Your task to perform on an android device: What's the weather going to be tomorrow? Image 0: 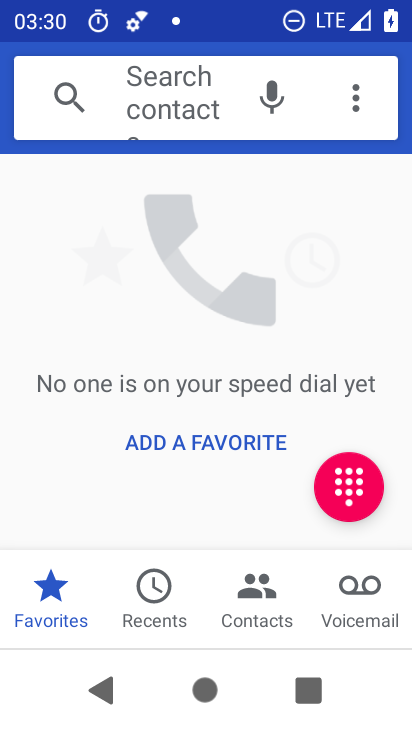
Step 0: press home button
Your task to perform on an android device: What's the weather going to be tomorrow? Image 1: 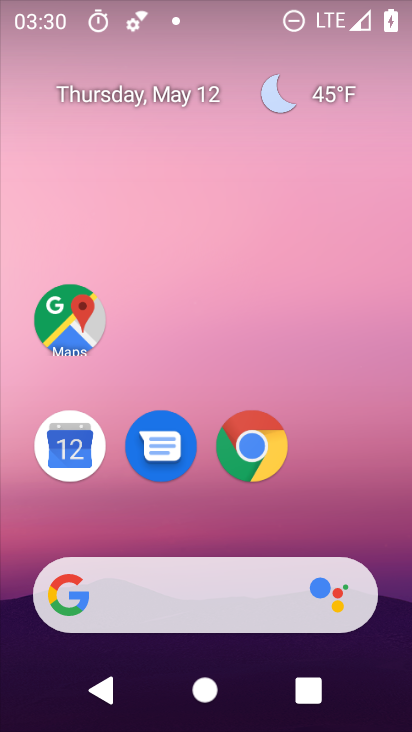
Step 1: drag from (217, 426) to (232, 131)
Your task to perform on an android device: What's the weather going to be tomorrow? Image 2: 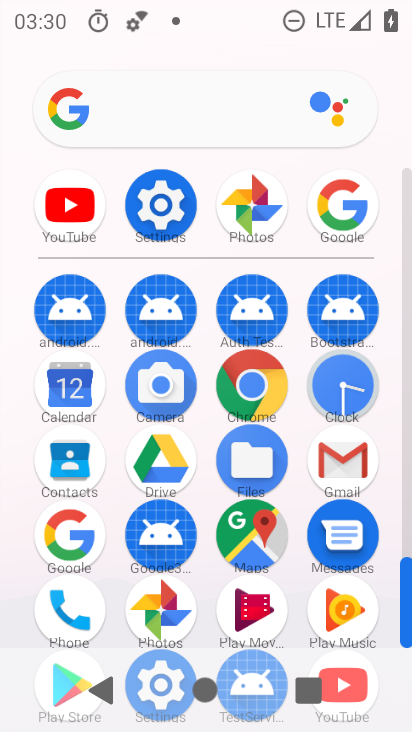
Step 2: click (58, 520)
Your task to perform on an android device: What's the weather going to be tomorrow? Image 3: 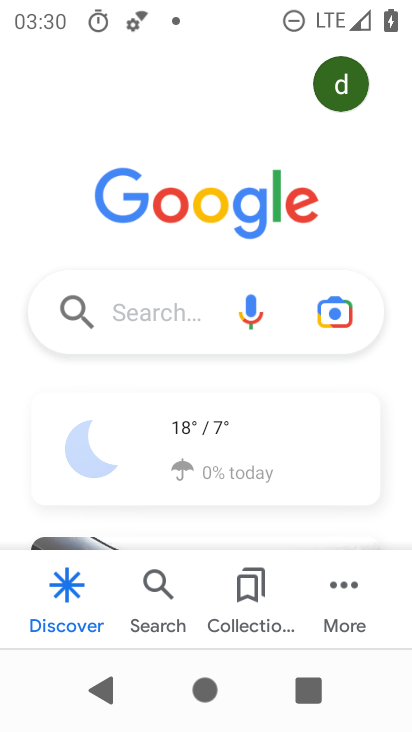
Step 3: click (166, 417)
Your task to perform on an android device: What's the weather going to be tomorrow? Image 4: 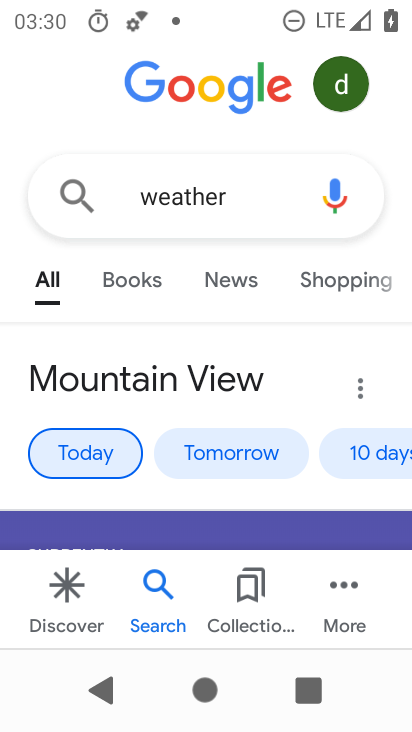
Step 4: click (278, 451)
Your task to perform on an android device: What's the weather going to be tomorrow? Image 5: 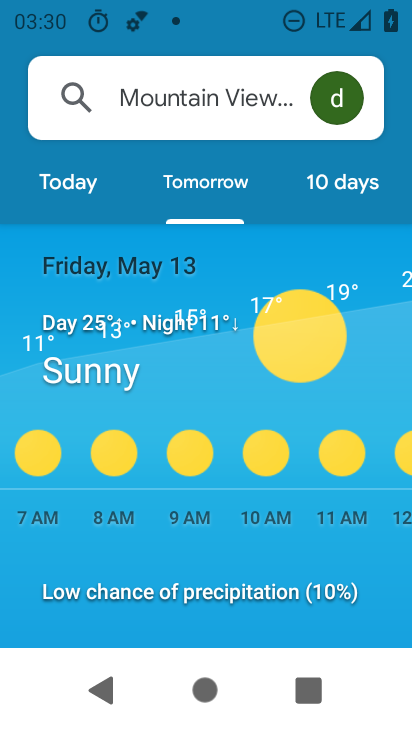
Step 5: task complete